Your task to perform on an android device: turn on location history Image 0: 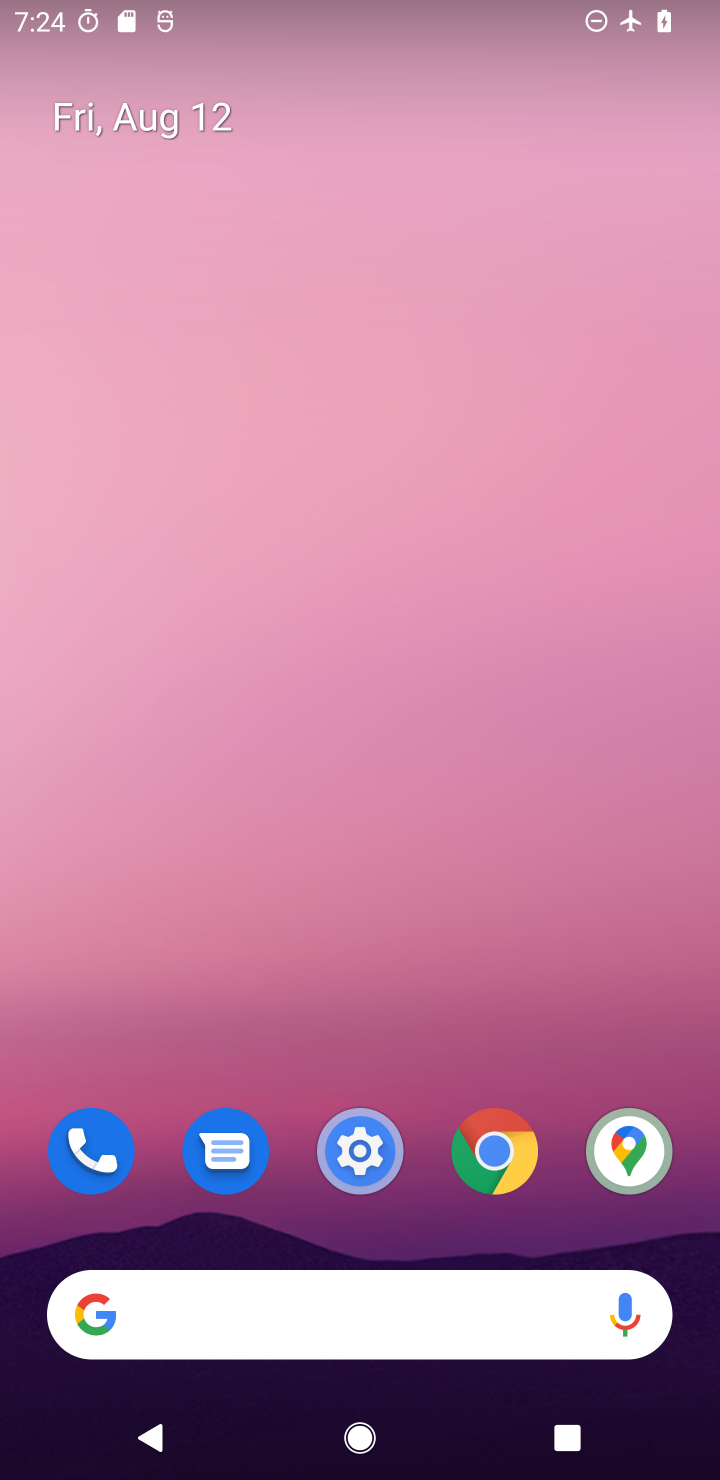
Step 0: drag from (501, 791) to (580, 79)
Your task to perform on an android device: turn on location history Image 1: 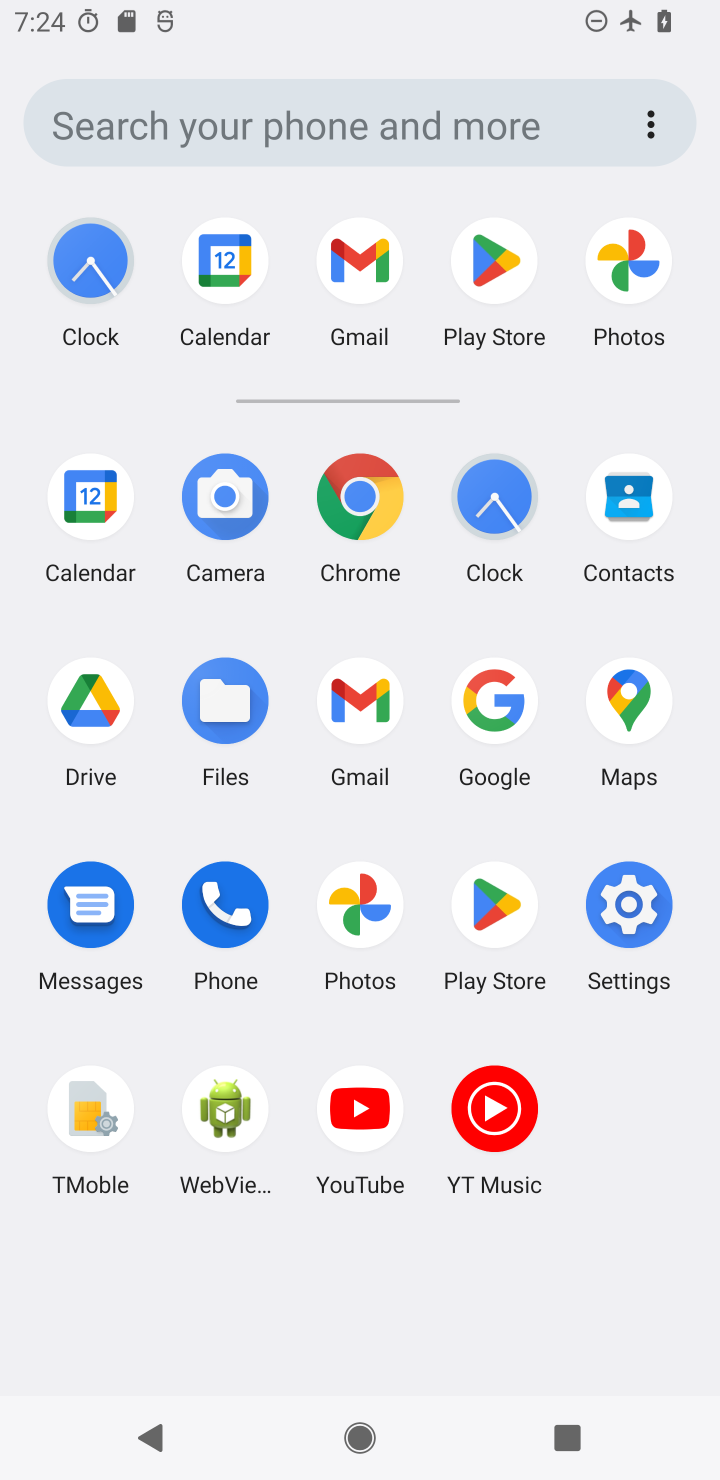
Step 1: click (639, 914)
Your task to perform on an android device: turn on location history Image 2: 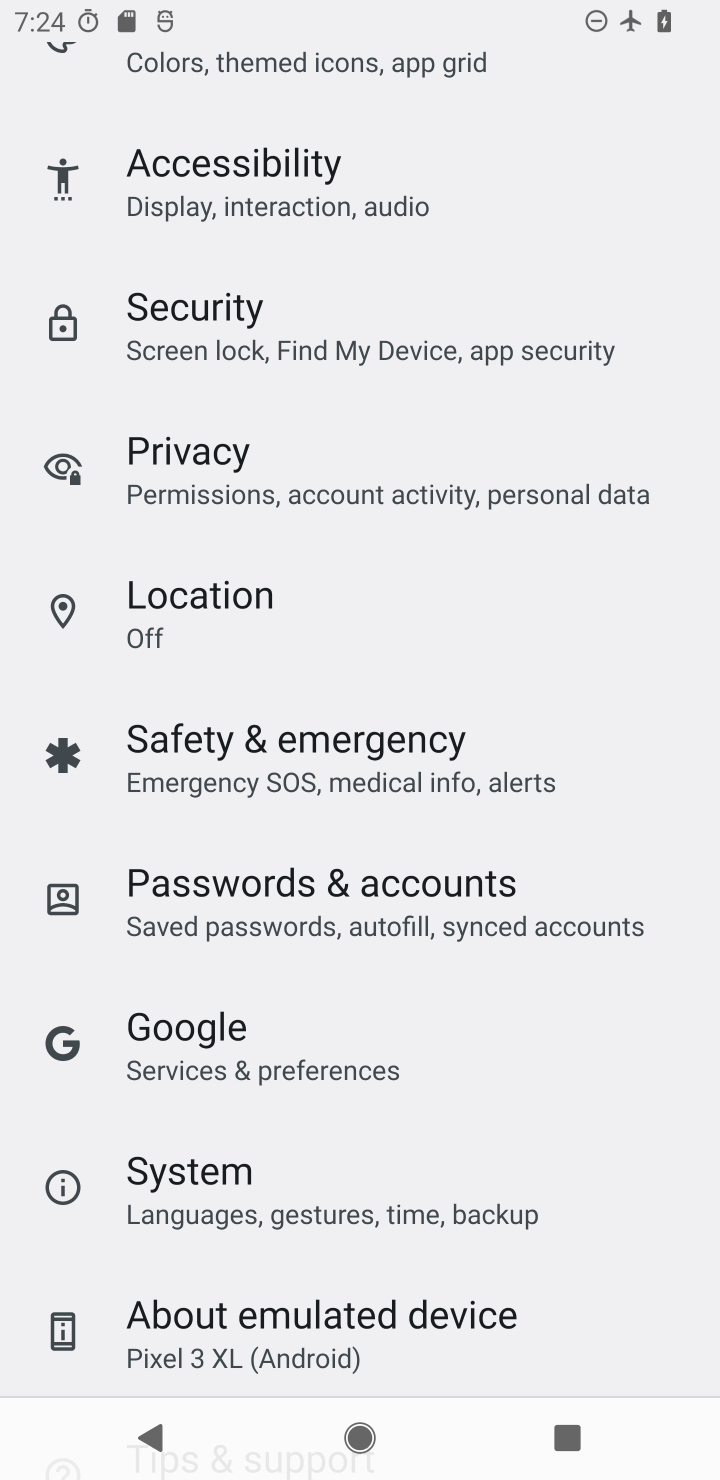
Step 2: click (259, 633)
Your task to perform on an android device: turn on location history Image 3: 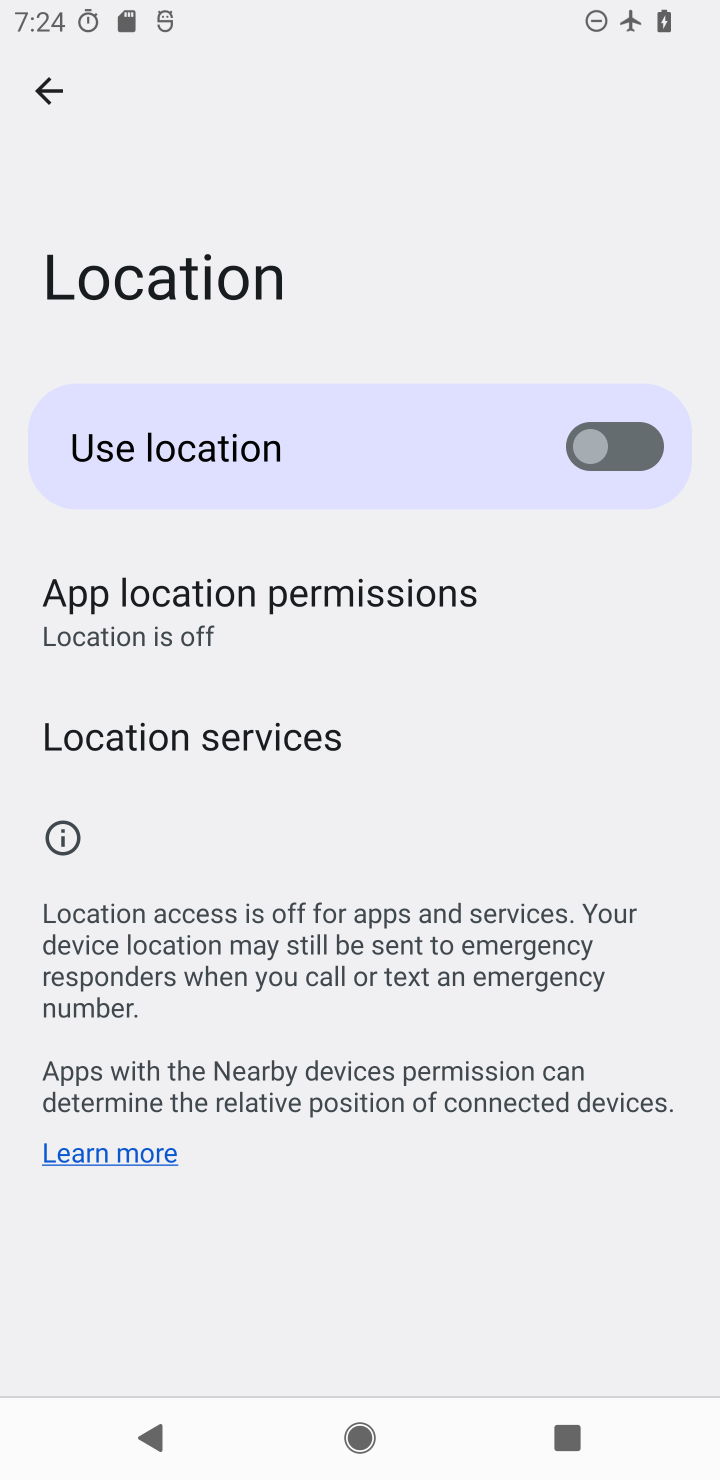
Step 3: click (289, 743)
Your task to perform on an android device: turn on location history Image 4: 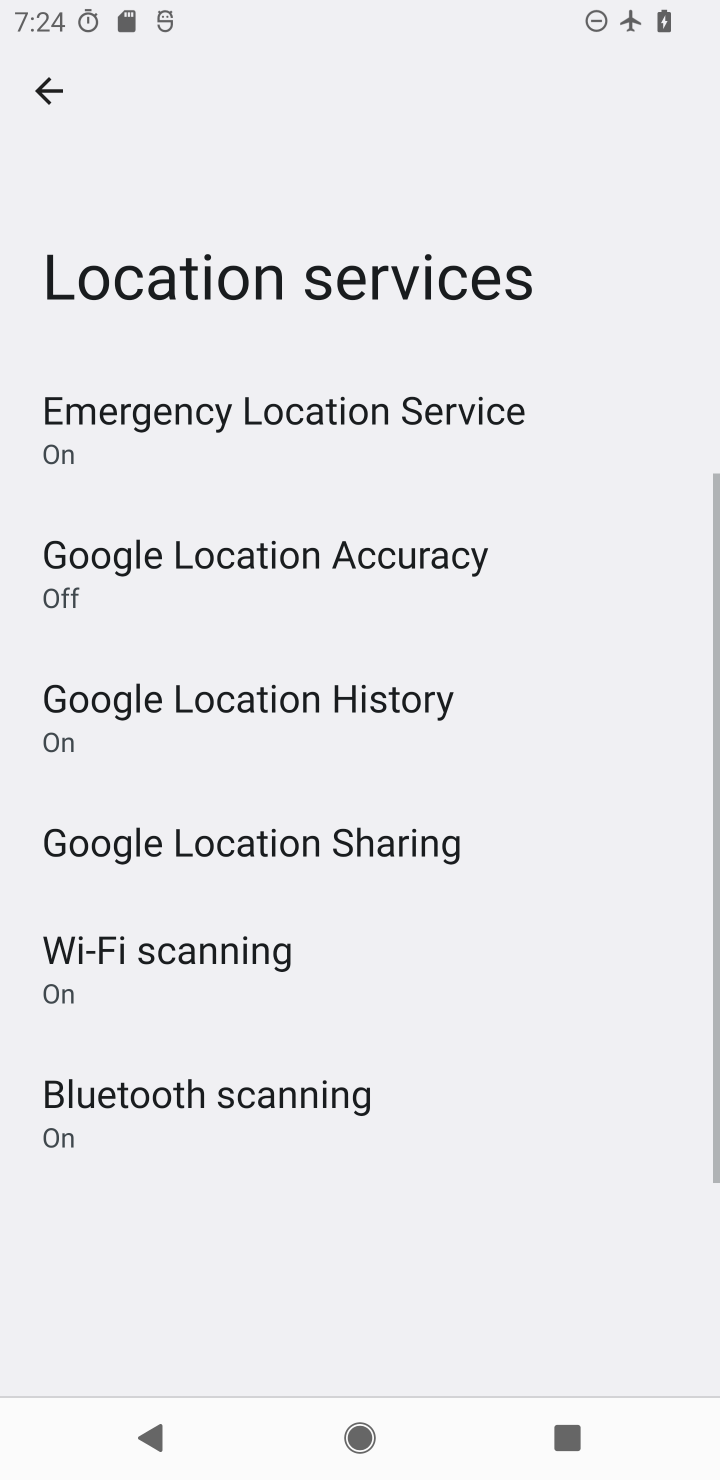
Step 4: click (433, 682)
Your task to perform on an android device: turn on location history Image 5: 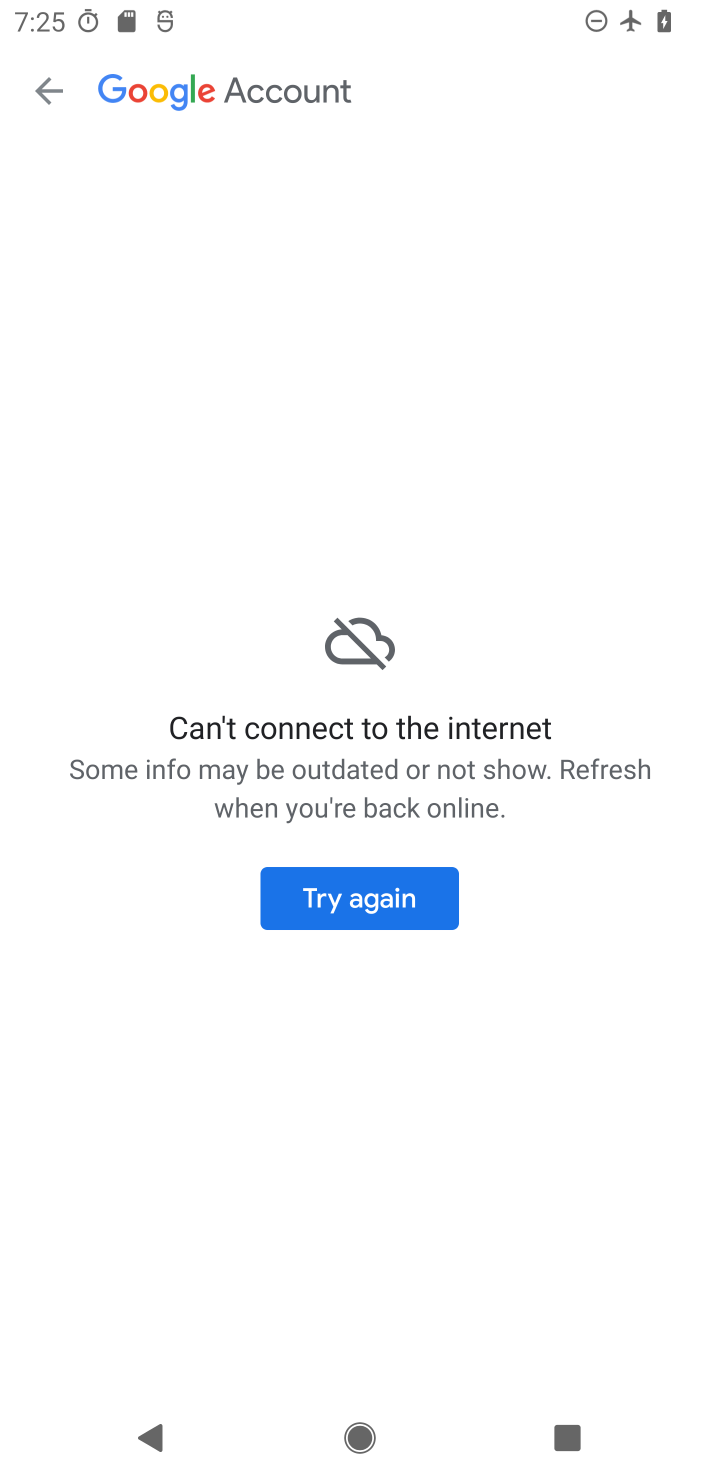
Step 5: task complete